Your task to perform on an android device: What's the weather going to be this weekend? Image 0: 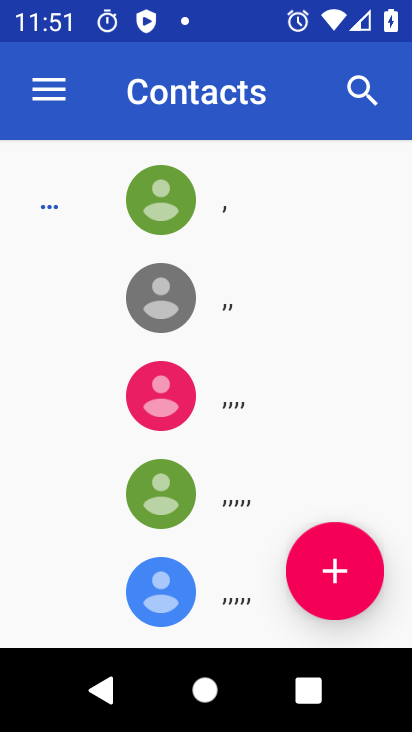
Step 0: press home button
Your task to perform on an android device: What's the weather going to be this weekend? Image 1: 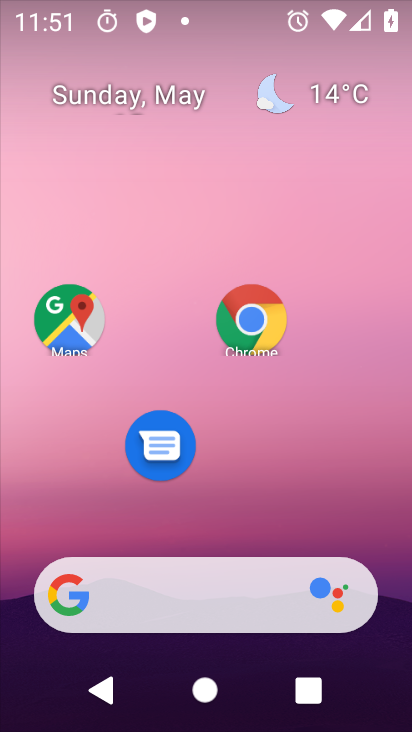
Step 1: click (328, 96)
Your task to perform on an android device: What's the weather going to be this weekend? Image 2: 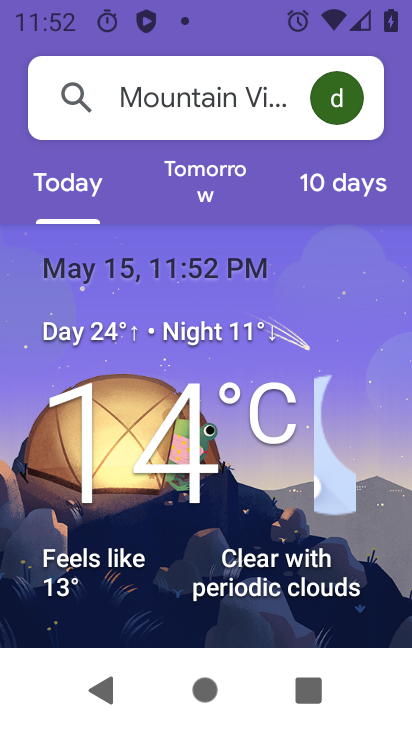
Step 2: click (320, 190)
Your task to perform on an android device: What's the weather going to be this weekend? Image 3: 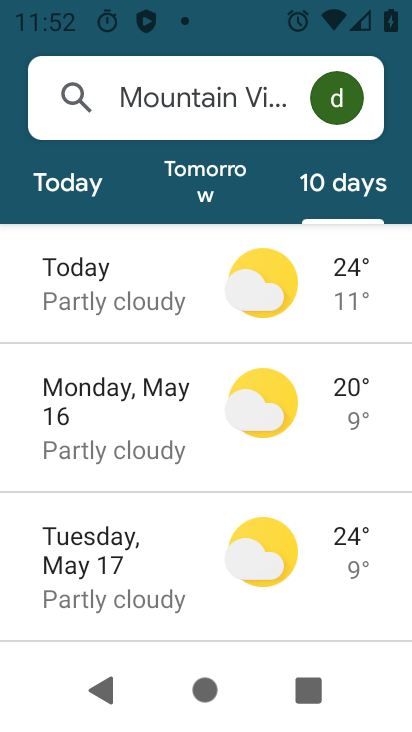
Step 3: drag from (149, 592) to (285, 197)
Your task to perform on an android device: What's the weather going to be this weekend? Image 4: 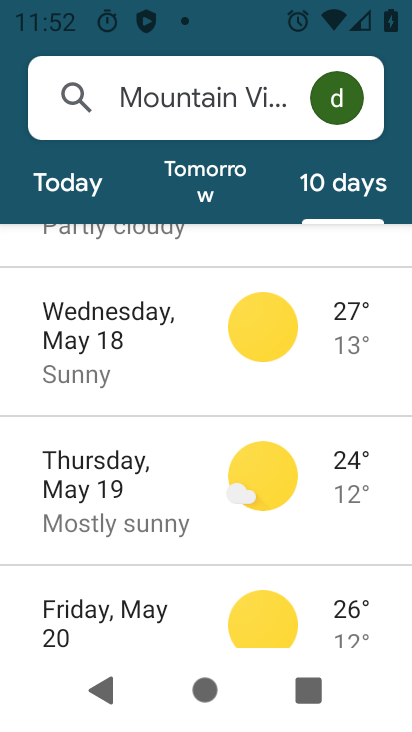
Step 4: drag from (123, 530) to (193, 195)
Your task to perform on an android device: What's the weather going to be this weekend? Image 5: 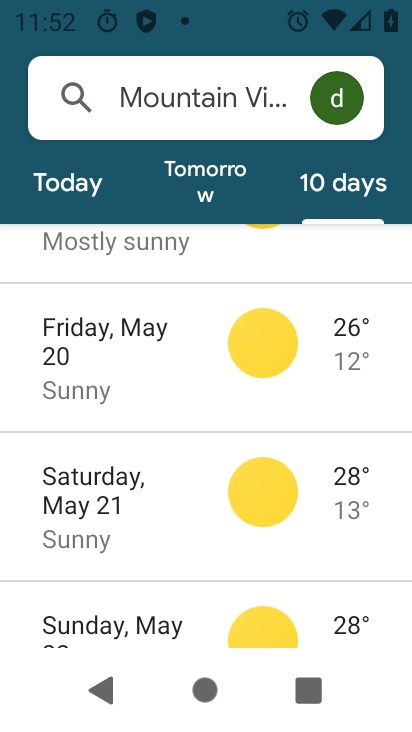
Step 5: click (120, 503)
Your task to perform on an android device: What's the weather going to be this weekend? Image 6: 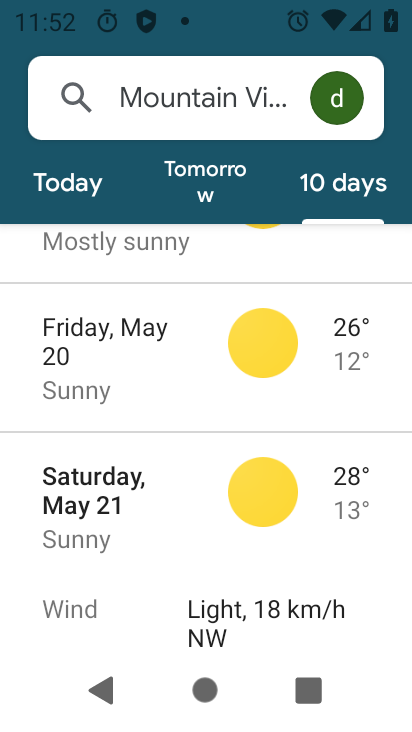
Step 6: task complete